Your task to perform on an android device: Turn off the flashlight Image 0: 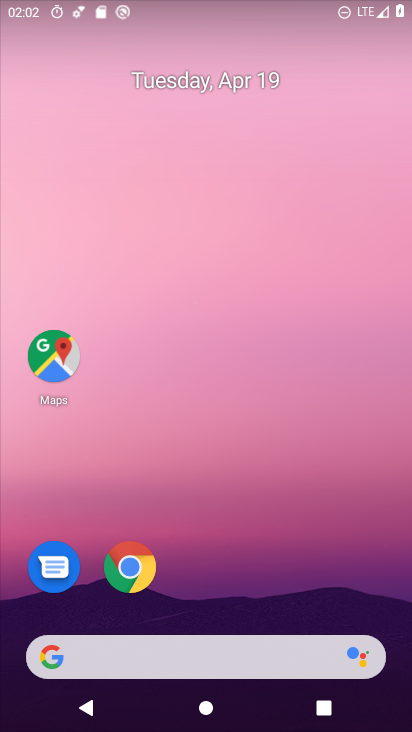
Step 0: drag from (248, 5) to (304, 523)
Your task to perform on an android device: Turn off the flashlight Image 1: 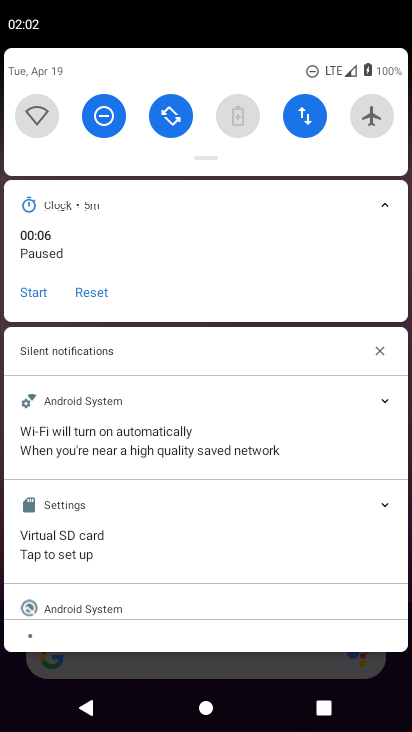
Step 1: task complete